Your task to perform on an android device: Go to settings Image 0: 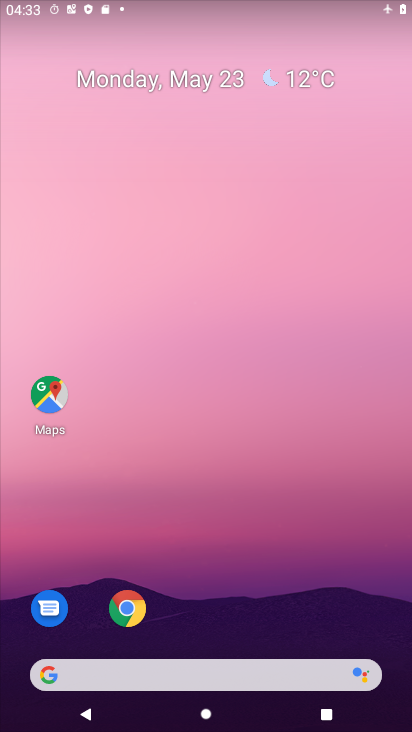
Step 0: drag from (302, 451) to (204, 62)
Your task to perform on an android device: Go to settings Image 1: 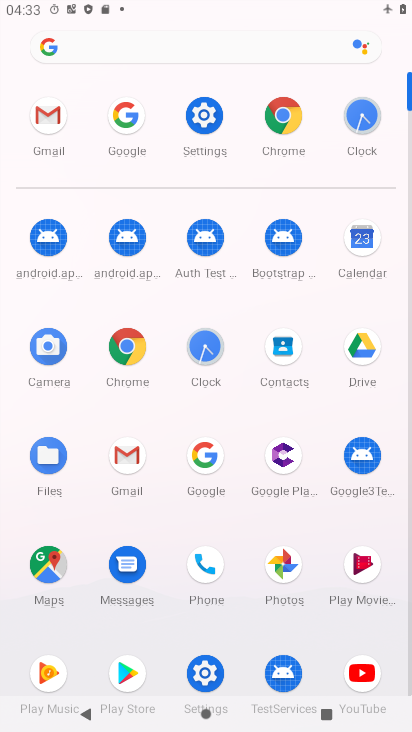
Step 1: click (212, 109)
Your task to perform on an android device: Go to settings Image 2: 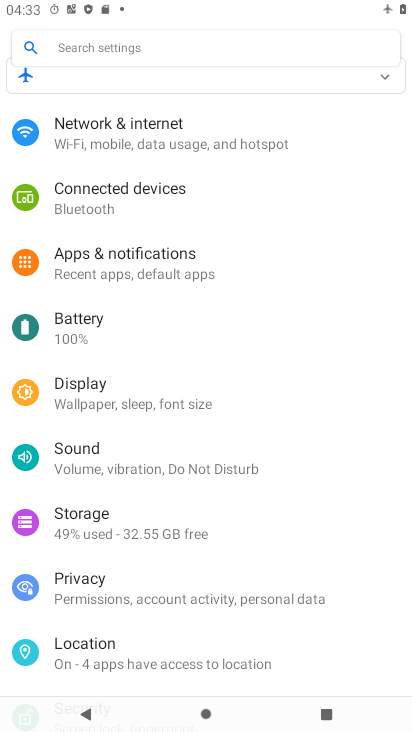
Step 2: task complete